Your task to perform on an android device: Go to Reddit.com Image 0: 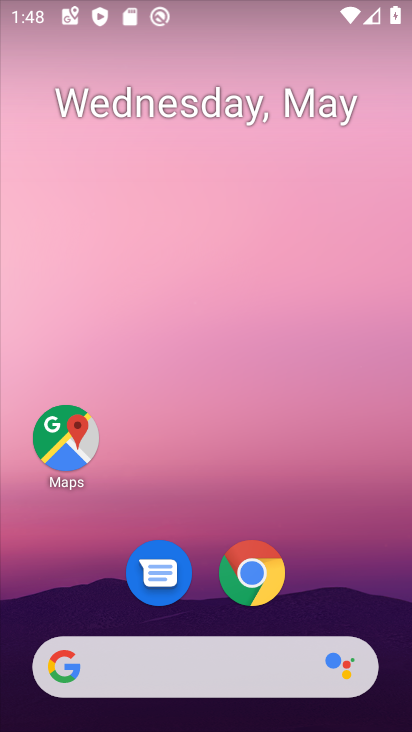
Step 0: click (244, 573)
Your task to perform on an android device: Go to Reddit.com Image 1: 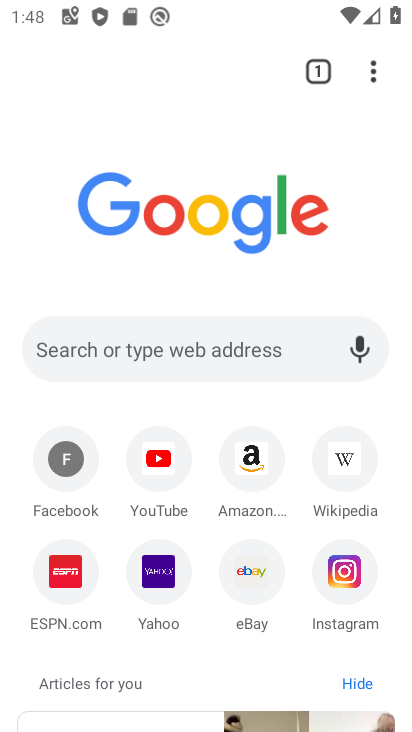
Step 1: click (149, 361)
Your task to perform on an android device: Go to Reddit.com Image 2: 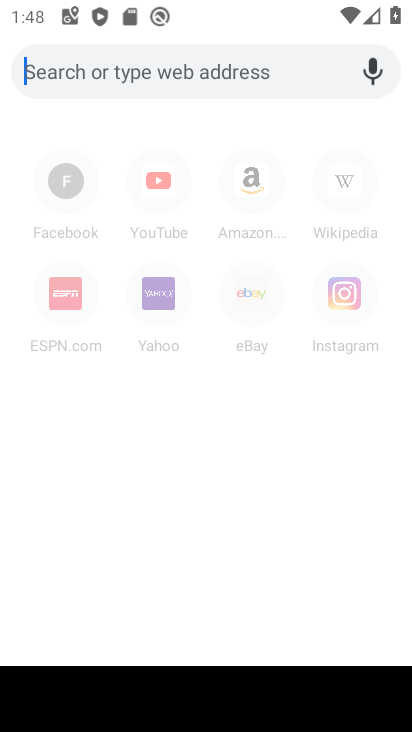
Step 2: type "Reddit.com"
Your task to perform on an android device: Go to Reddit.com Image 3: 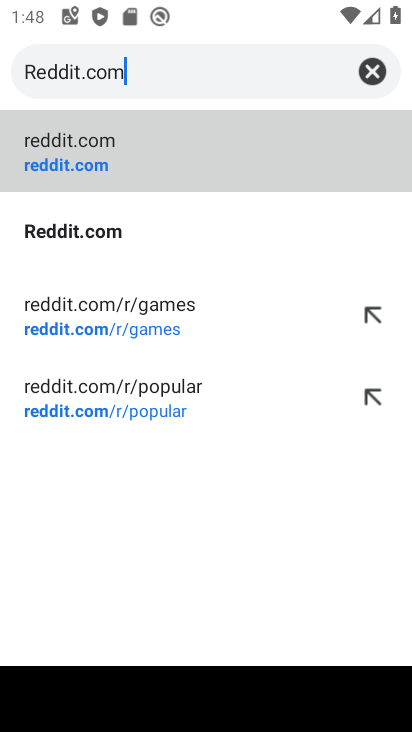
Step 3: click (85, 139)
Your task to perform on an android device: Go to Reddit.com Image 4: 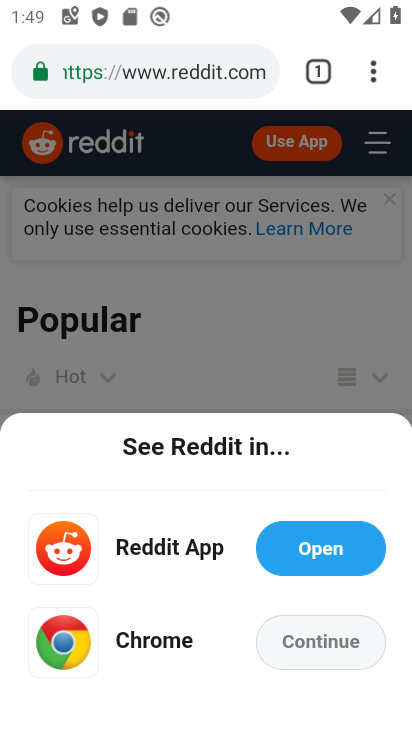
Step 4: task complete